Your task to perform on an android device: open sync settings in chrome Image 0: 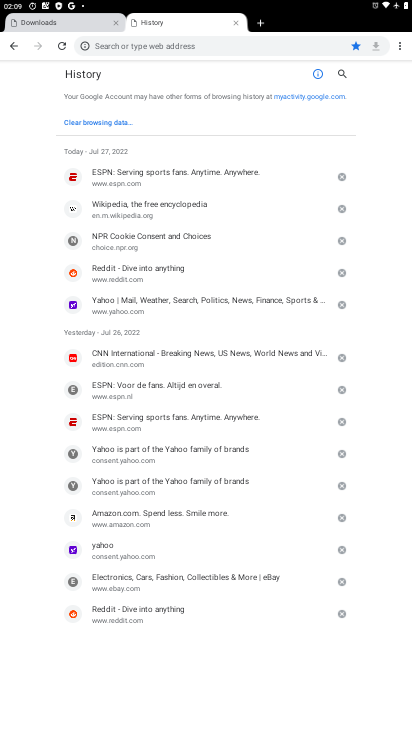
Step 0: drag from (406, 41) to (322, 212)
Your task to perform on an android device: open sync settings in chrome Image 1: 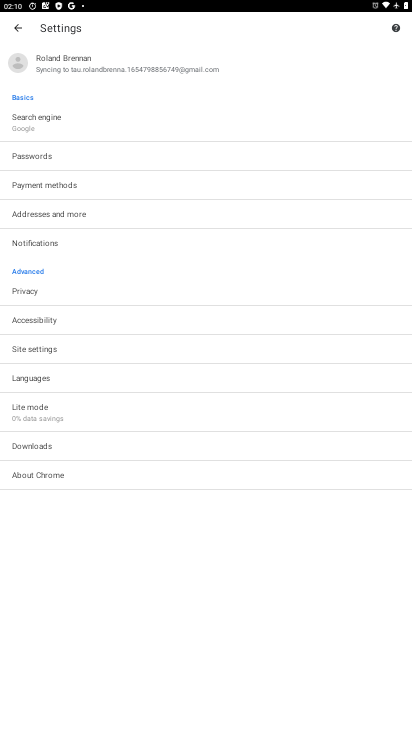
Step 1: click (84, 70)
Your task to perform on an android device: open sync settings in chrome Image 2: 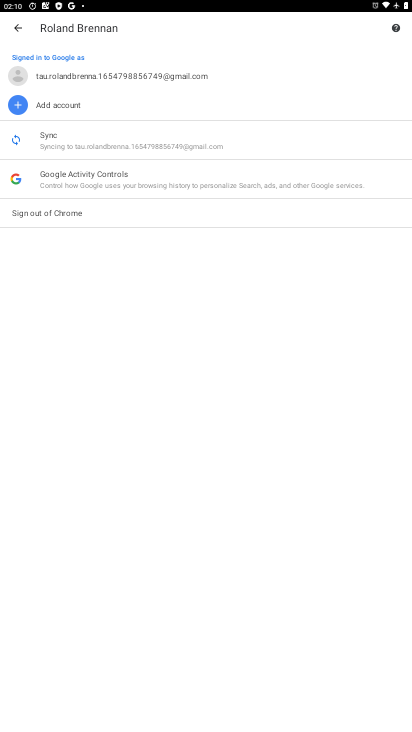
Step 2: click (84, 136)
Your task to perform on an android device: open sync settings in chrome Image 3: 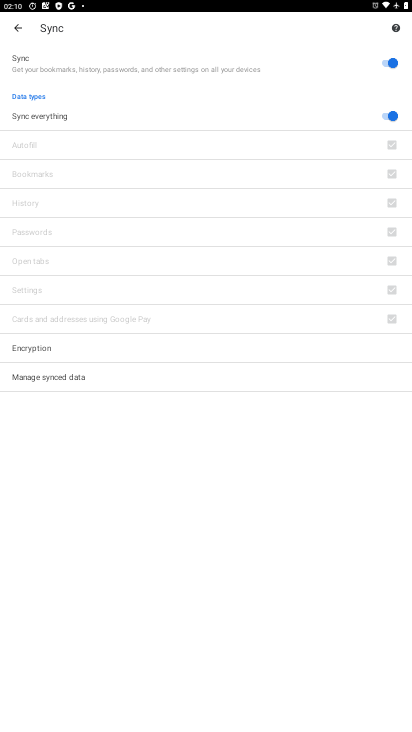
Step 3: task complete